Your task to perform on an android device: read, delete, or share a saved page in the chrome app Image 0: 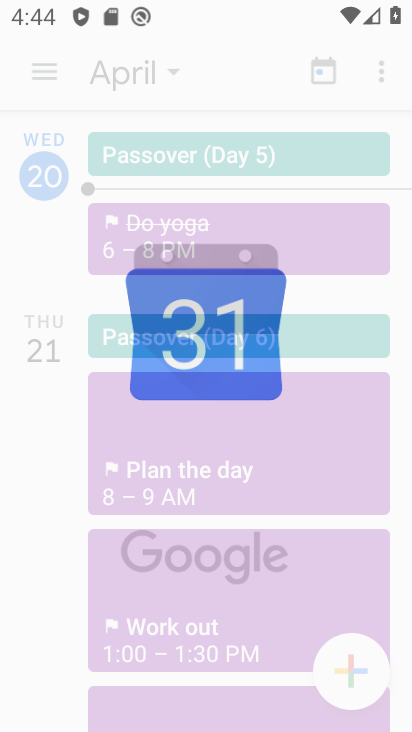
Step 0: drag from (301, 429) to (323, 109)
Your task to perform on an android device: read, delete, or share a saved page in the chrome app Image 1: 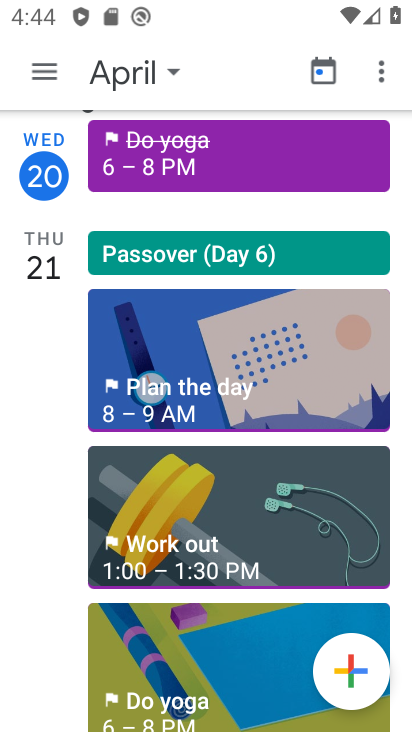
Step 1: press home button
Your task to perform on an android device: read, delete, or share a saved page in the chrome app Image 2: 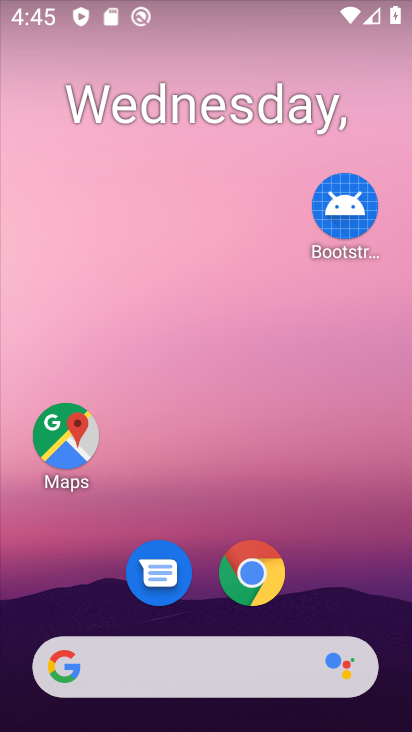
Step 2: click (263, 566)
Your task to perform on an android device: read, delete, or share a saved page in the chrome app Image 3: 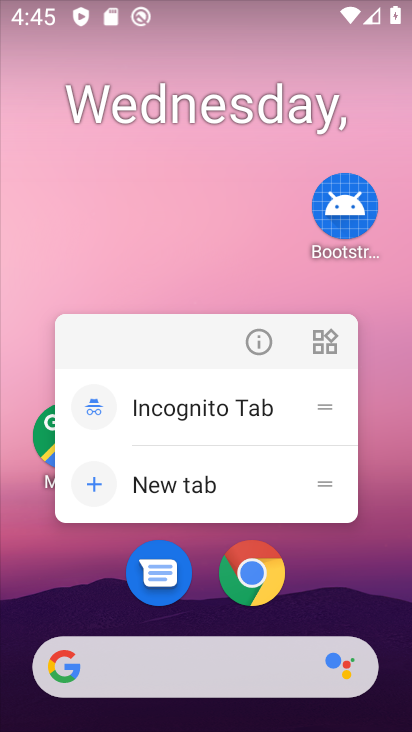
Step 3: click (236, 566)
Your task to perform on an android device: read, delete, or share a saved page in the chrome app Image 4: 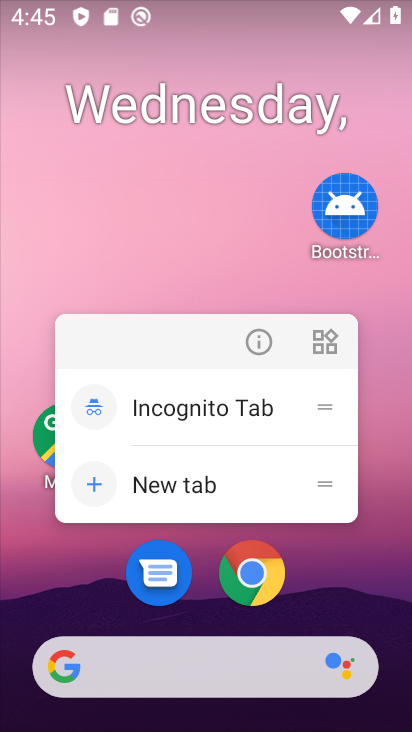
Step 4: drag from (324, 533) to (378, 124)
Your task to perform on an android device: read, delete, or share a saved page in the chrome app Image 5: 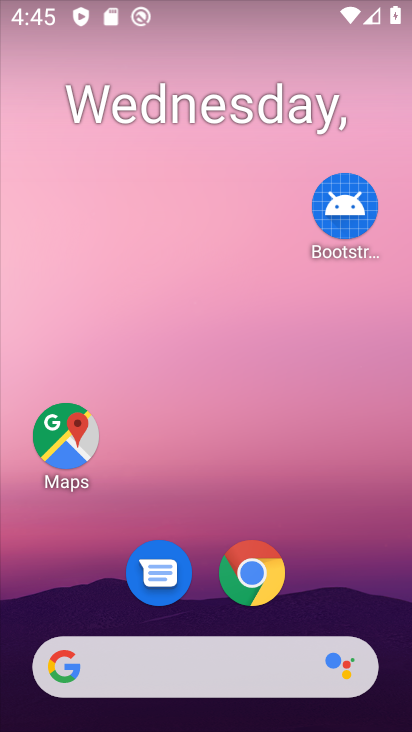
Step 5: drag from (329, 568) to (320, 135)
Your task to perform on an android device: read, delete, or share a saved page in the chrome app Image 6: 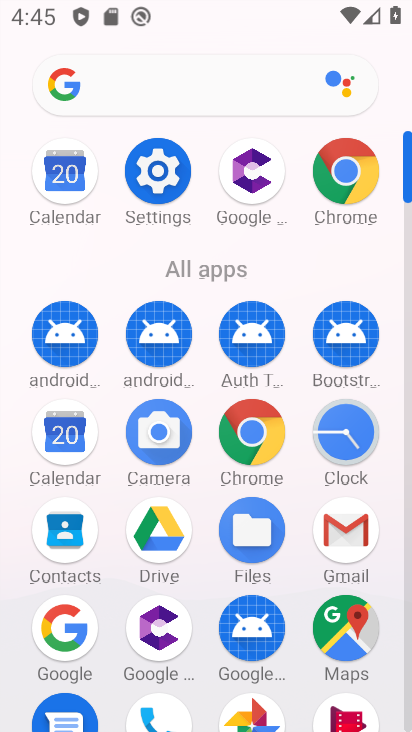
Step 6: click (264, 432)
Your task to perform on an android device: read, delete, or share a saved page in the chrome app Image 7: 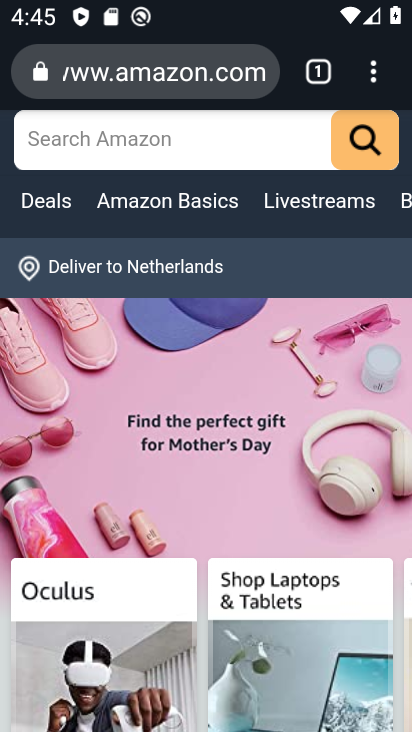
Step 7: drag from (376, 74) to (200, 172)
Your task to perform on an android device: read, delete, or share a saved page in the chrome app Image 8: 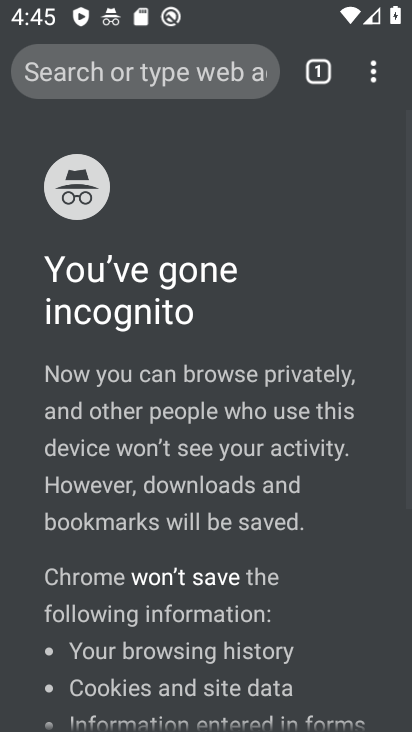
Step 8: drag from (370, 68) to (103, 132)
Your task to perform on an android device: read, delete, or share a saved page in the chrome app Image 9: 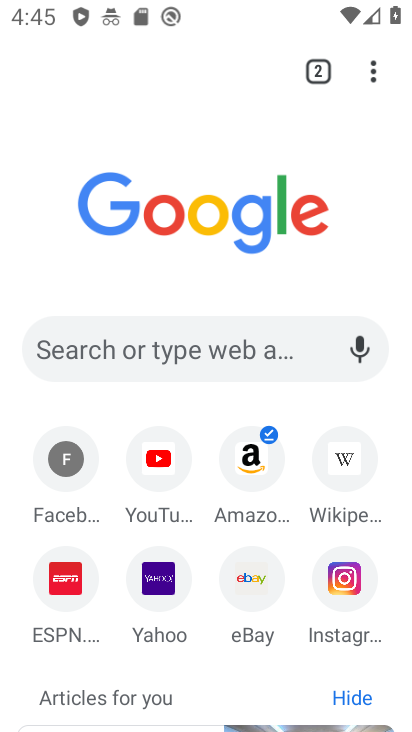
Step 9: click (339, 454)
Your task to perform on an android device: read, delete, or share a saved page in the chrome app Image 10: 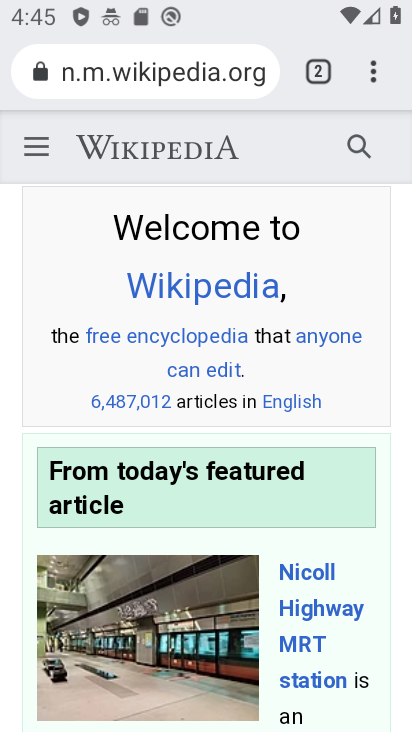
Step 10: drag from (374, 456) to (372, 242)
Your task to perform on an android device: read, delete, or share a saved page in the chrome app Image 11: 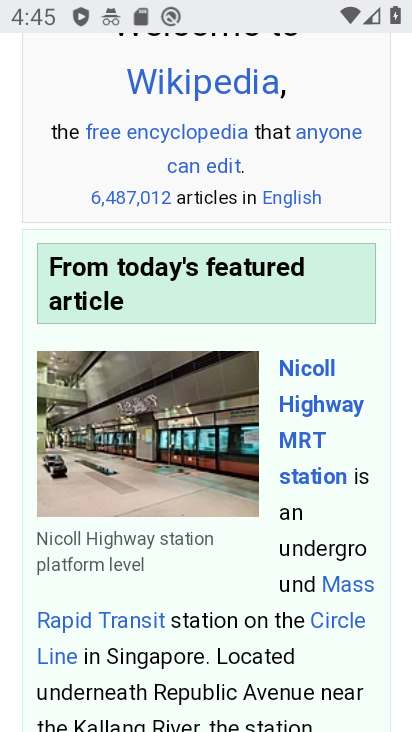
Step 11: drag from (342, 652) to (348, 155)
Your task to perform on an android device: read, delete, or share a saved page in the chrome app Image 12: 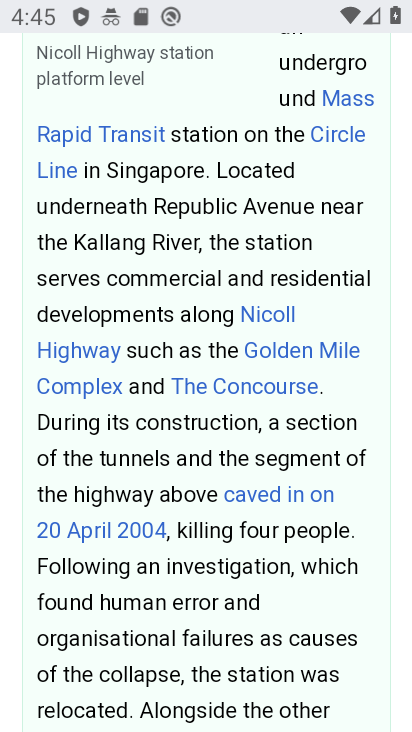
Step 12: drag from (362, 189) to (274, 624)
Your task to perform on an android device: read, delete, or share a saved page in the chrome app Image 13: 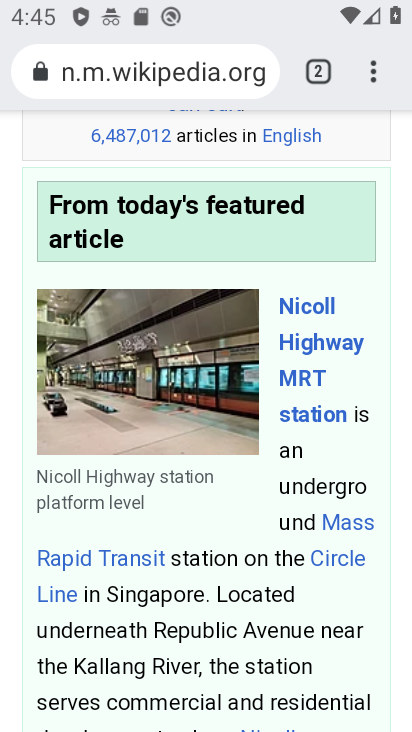
Step 13: drag from (373, 72) to (155, 71)
Your task to perform on an android device: read, delete, or share a saved page in the chrome app Image 14: 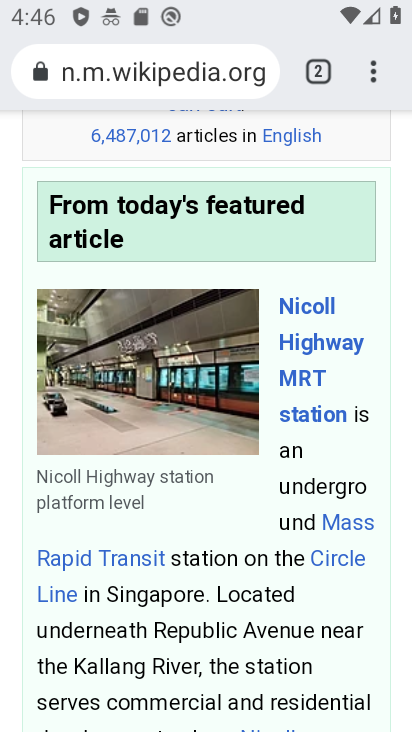
Step 14: drag from (375, 68) to (161, 80)
Your task to perform on an android device: read, delete, or share a saved page in the chrome app Image 15: 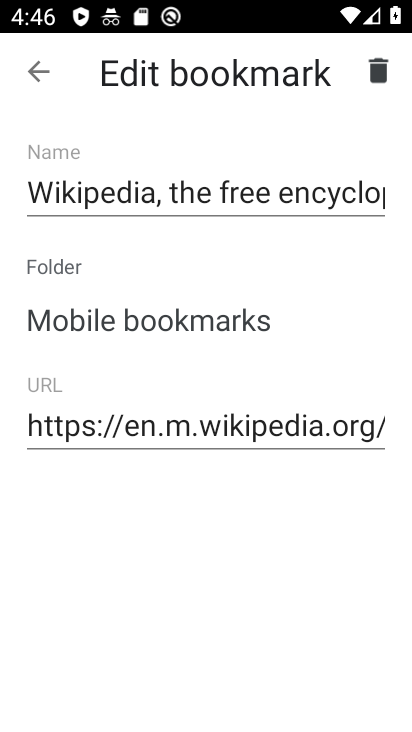
Step 15: click (377, 67)
Your task to perform on an android device: read, delete, or share a saved page in the chrome app Image 16: 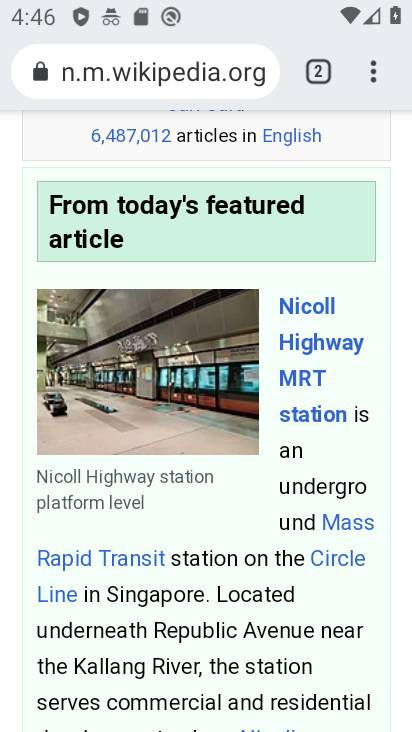
Step 16: task complete